Your task to perform on an android device: Is it going to rain this weekend? Image 0: 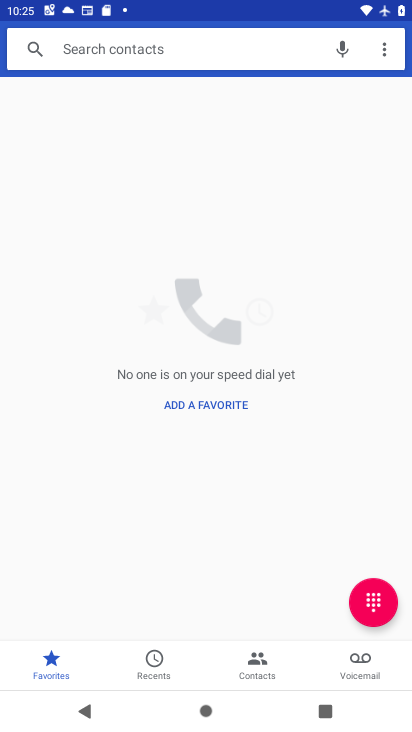
Step 0: press home button
Your task to perform on an android device: Is it going to rain this weekend? Image 1: 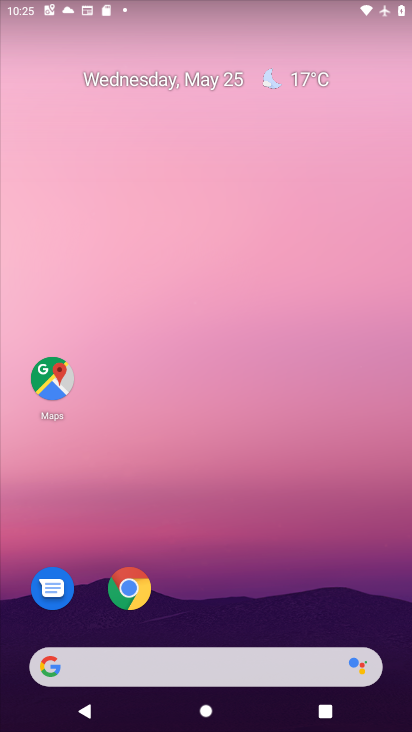
Step 1: click (261, 665)
Your task to perform on an android device: Is it going to rain this weekend? Image 2: 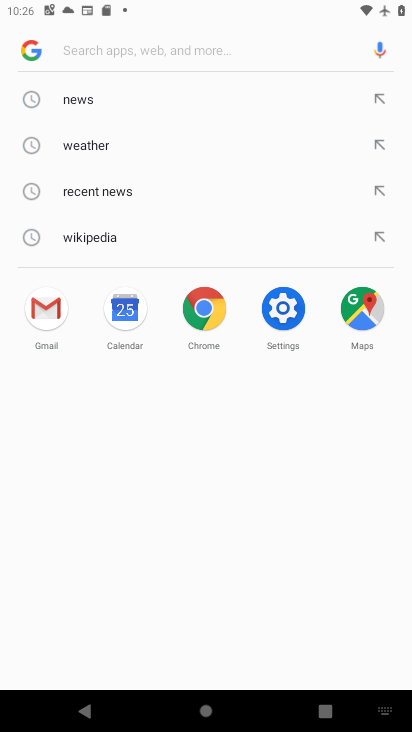
Step 2: click (97, 145)
Your task to perform on an android device: Is it going to rain this weekend? Image 3: 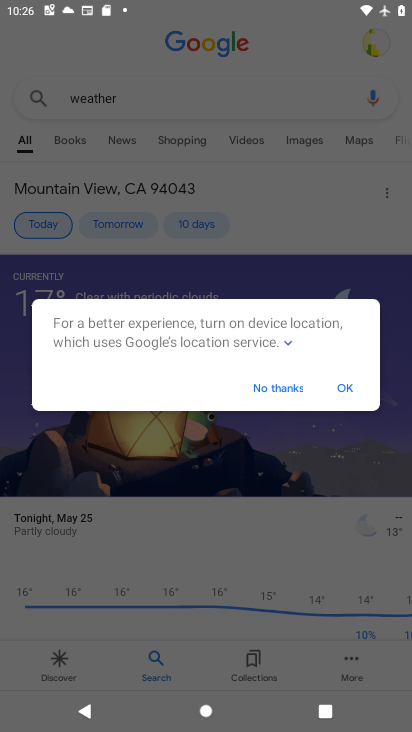
Step 3: click (273, 387)
Your task to perform on an android device: Is it going to rain this weekend? Image 4: 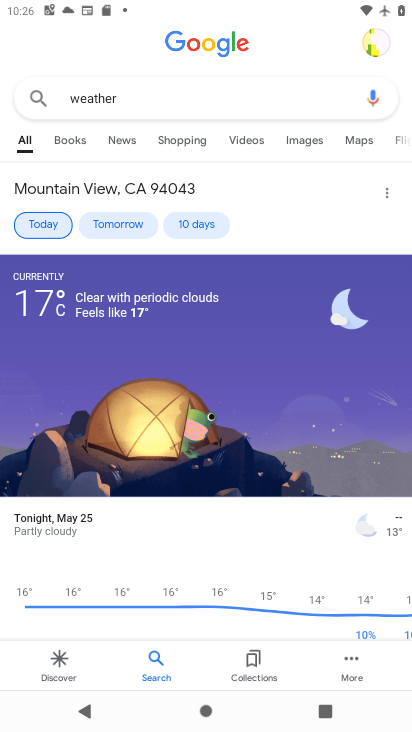
Step 4: click (215, 230)
Your task to perform on an android device: Is it going to rain this weekend? Image 5: 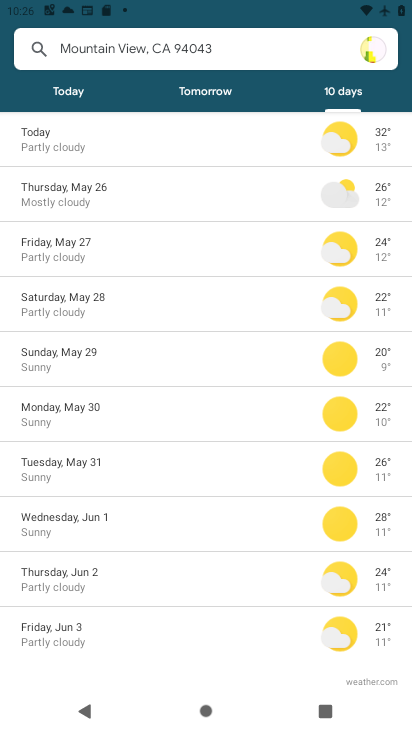
Step 5: click (193, 365)
Your task to perform on an android device: Is it going to rain this weekend? Image 6: 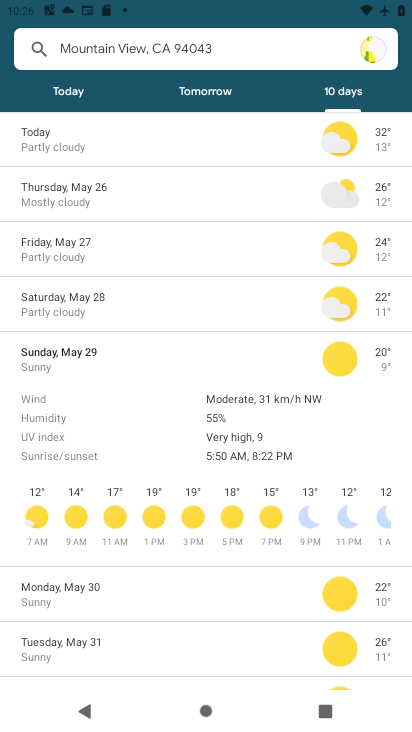
Step 6: task complete